Your task to perform on an android device: Go to internet settings Image 0: 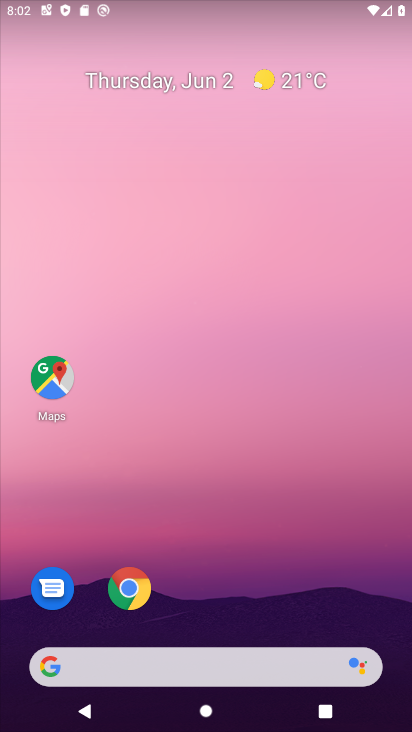
Step 0: drag from (245, 686) to (309, 271)
Your task to perform on an android device: Go to internet settings Image 1: 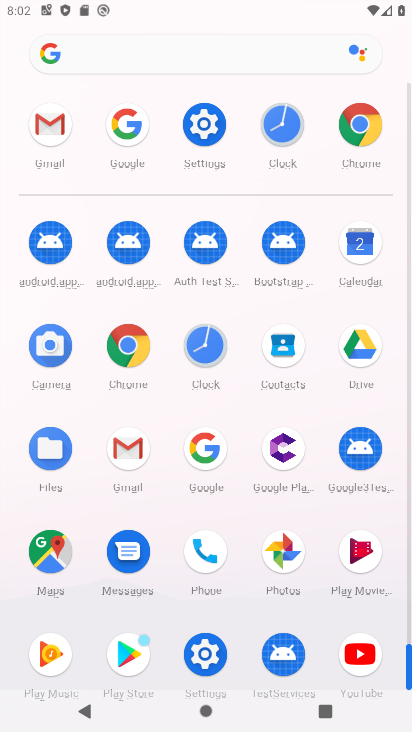
Step 1: click (202, 145)
Your task to perform on an android device: Go to internet settings Image 2: 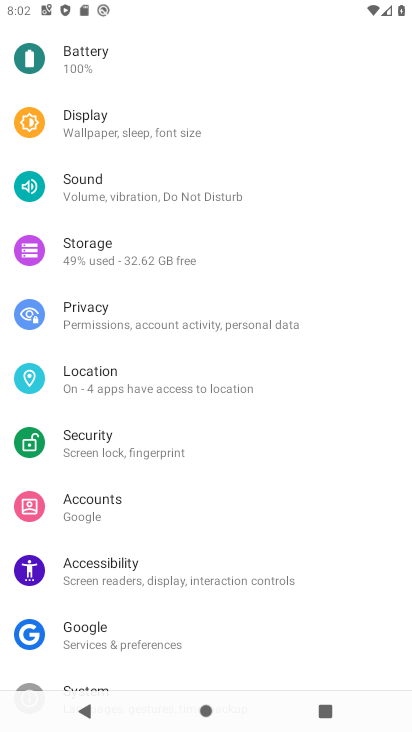
Step 2: drag from (210, 352) to (210, 406)
Your task to perform on an android device: Go to internet settings Image 3: 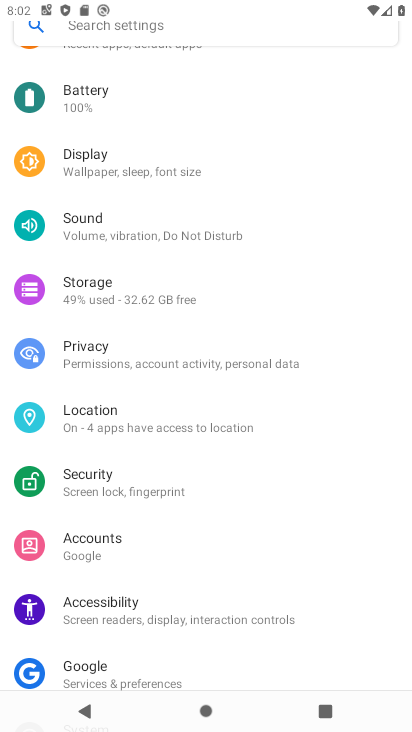
Step 3: drag from (250, 301) to (249, 496)
Your task to perform on an android device: Go to internet settings Image 4: 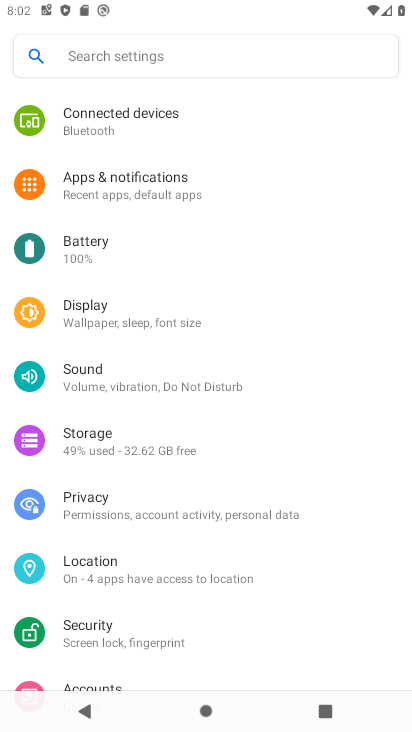
Step 4: drag from (249, 396) to (247, 572)
Your task to perform on an android device: Go to internet settings Image 5: 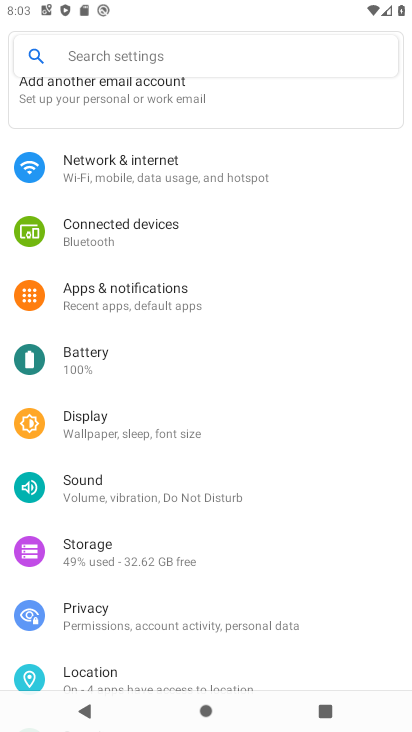
Step 5: click (251, 162)
Your task to perform on an android device: Go to internet settings Image 6: 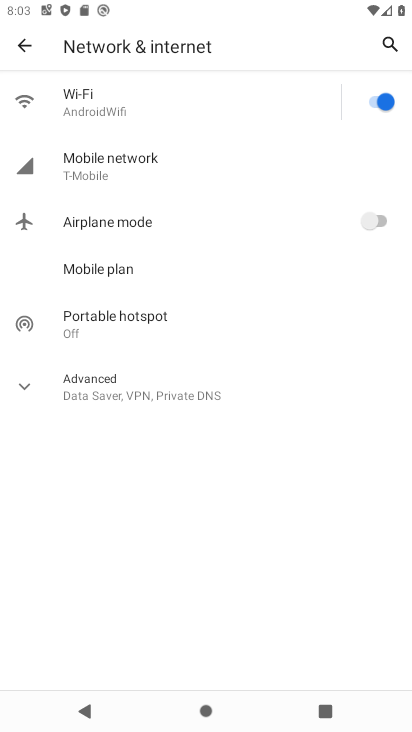
Step 6: click (182, 167)
Your task to perform on an android device: Go to internet settings Image 7: 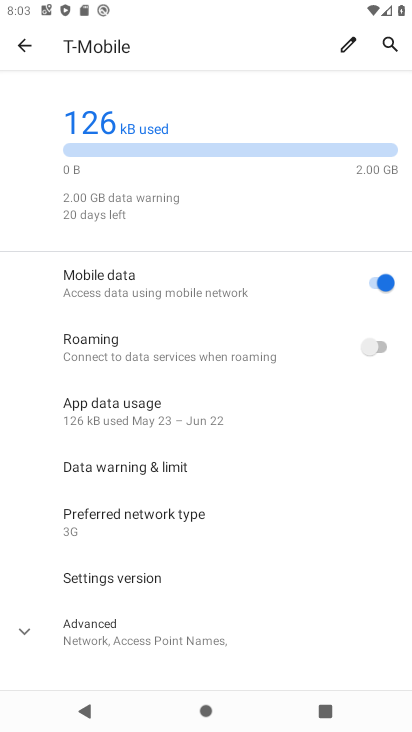
Step 7: task complete